Your task to perform on an android device: change alarm snooze length Image 0: 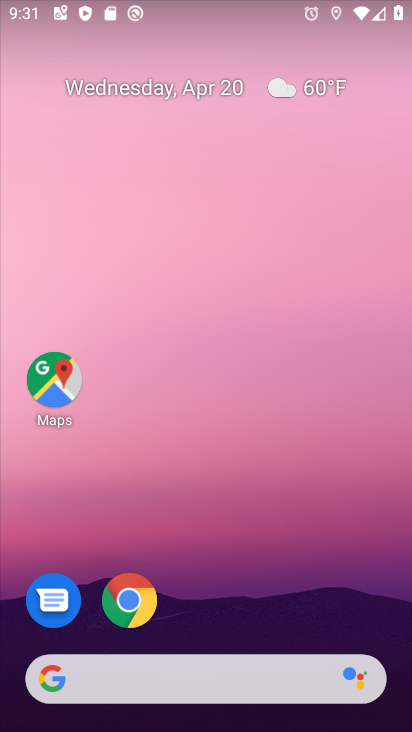
Step 0: drag from (200, 637) to (250, 95)
Your task to perform on an android device: change alarm snooze length Image 1: 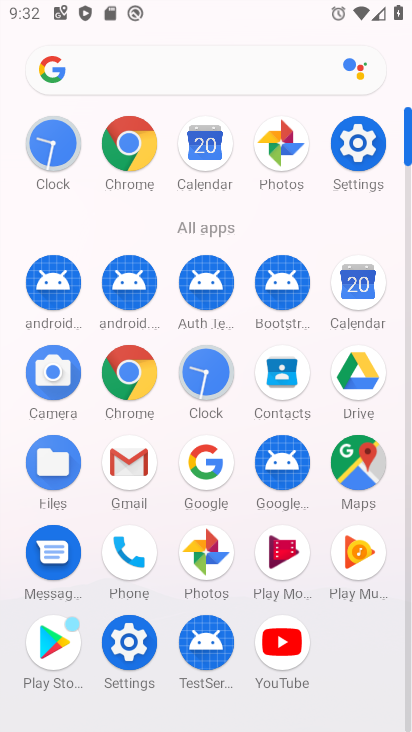
Step 1: click (215, 386)
Your task to perform on an android device: change alarm snooze length Image 2: 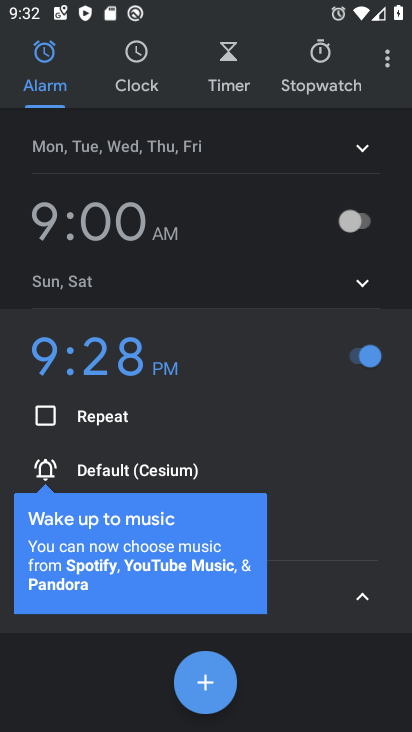
Step 2: click (376, 65)
Your task to perform on an android device: change alarm snooze length Image 3: 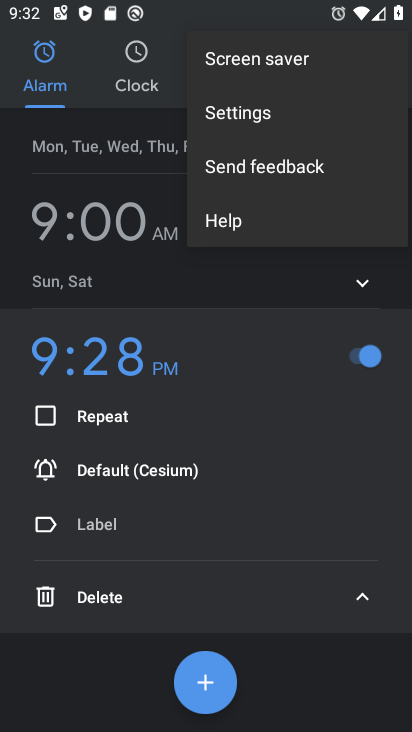
Step 3: click (273, 113)
Your task to perform on an android device: change alarm snooze length Image 4: 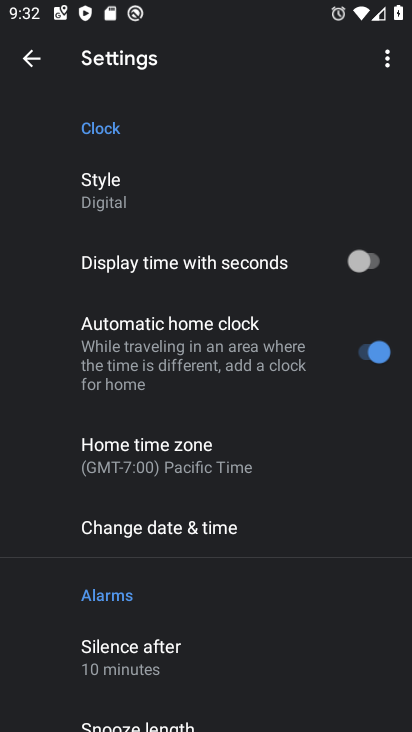
Step 4: drag from (197, 508) to (170, 152)
Your task to perform on an android device: change alarm snooze length Image 5: 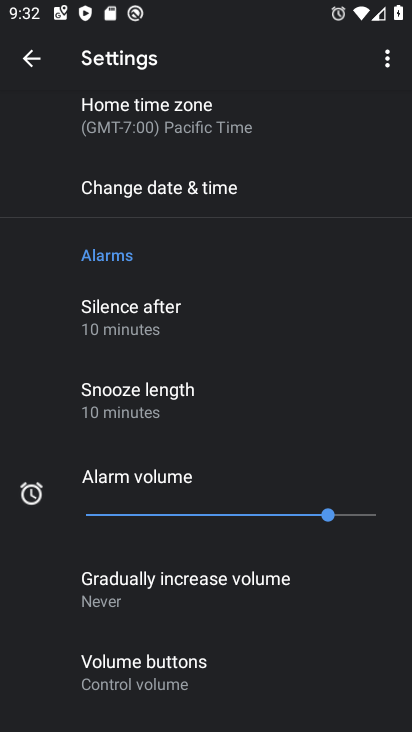
Step 5: click (163, 383)
Your task to perform on an android device: change alarm snooze length Image 6: 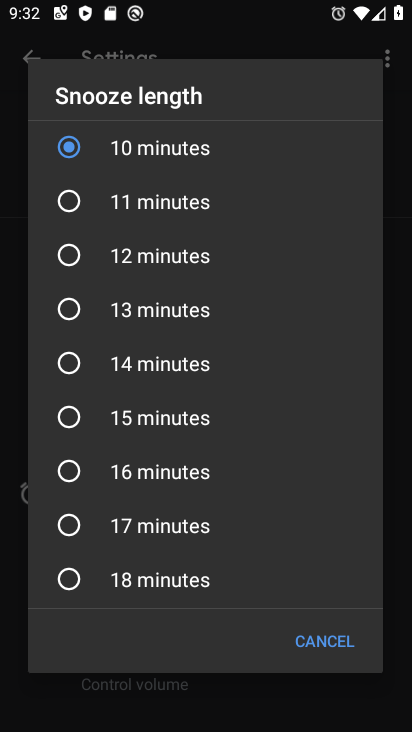
Step 6: click (79, 202)
Your task to perform on an android device: change alarm snooze length Image 7: 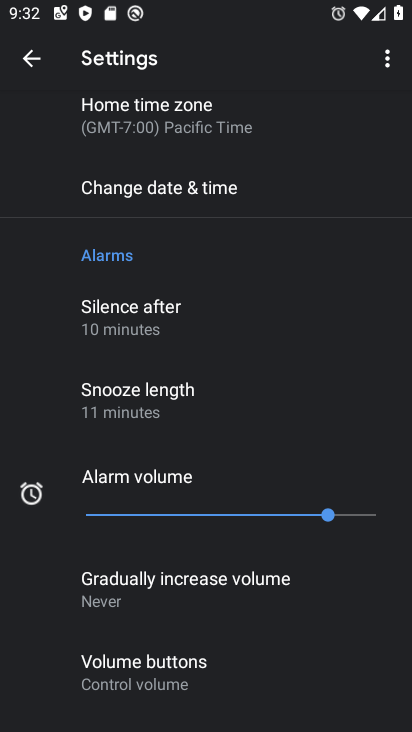
Step 7: task complete